Your task to perform on an android device: remove spam from my inbox in the gmail app Image 0: 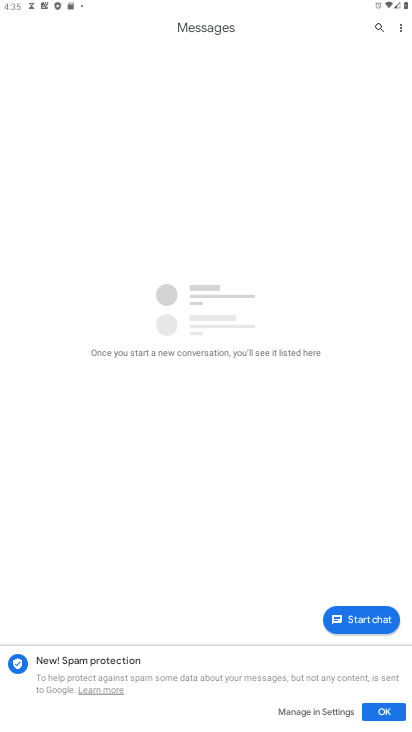
Step 0: press home button
Your task to perform on an android device: remove spam from my inbox in the gmail app Image 1: 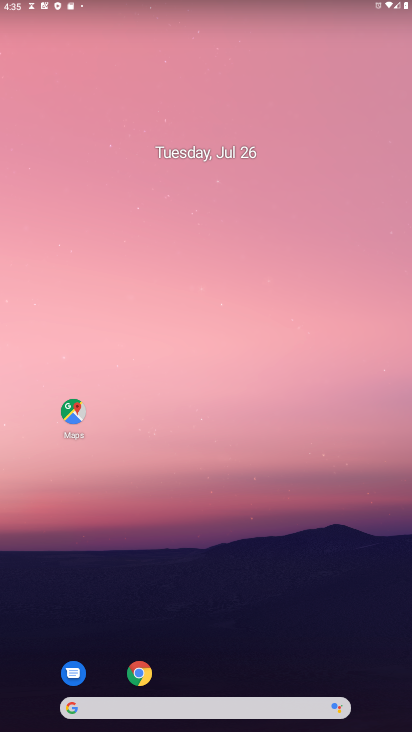
Step 1: drag from (191, 706) to (163, 60)
Your task to perform on an android device: remove spam from my inbox in the gmail app Image 2: 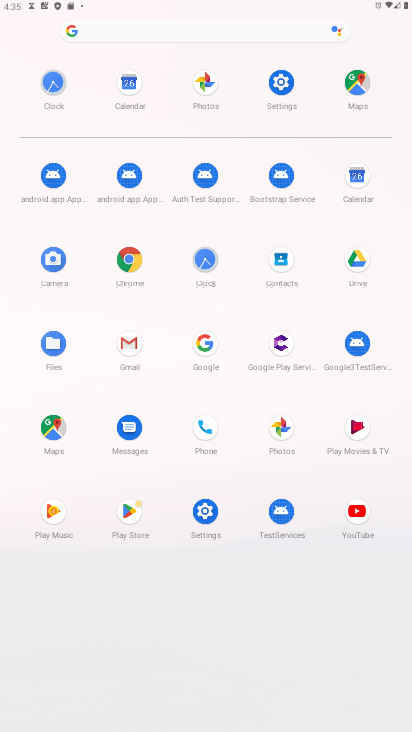
Step 2: click (128, 342)
Your task to perform on an android device: remove spam from my inbox in the gmail app Image 3: 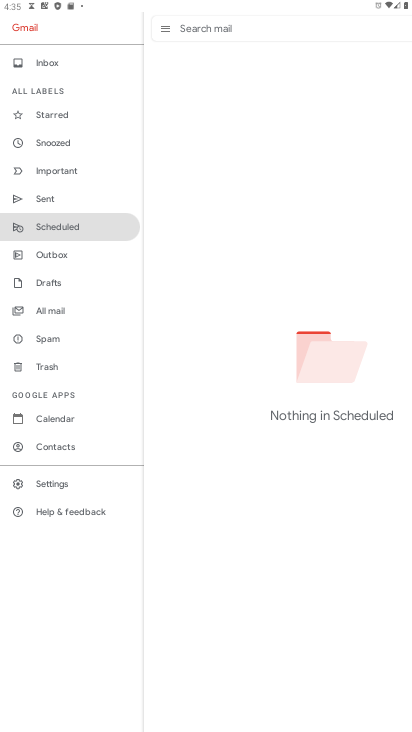
Step 3: click (54, 340)
Your task to perform on an android device: remove spam from my inbox in the gmail app Image 4: 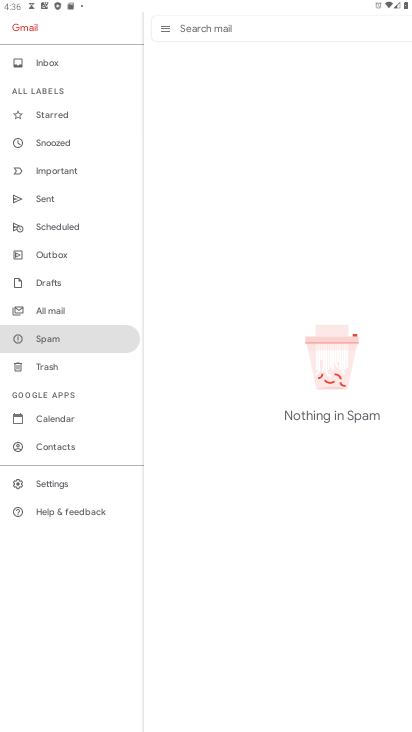
Step 4: task complete